Your task to perform on an android device: change keyboard looks Image 0: 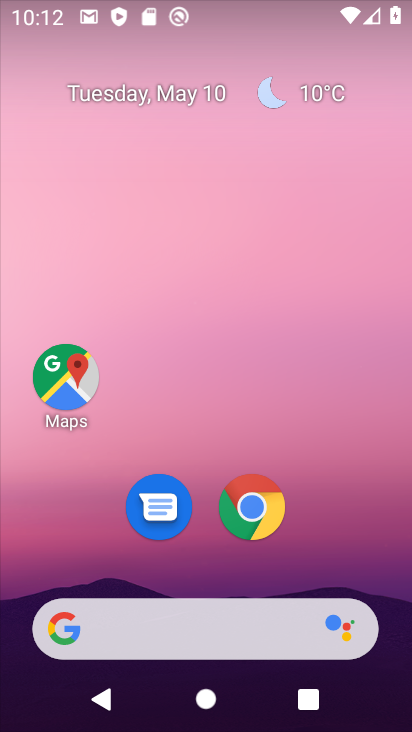
Step 0: drag from (339, 563) to (323, 99)
Your task to perform on an android device: change keyboard looks Image 1: 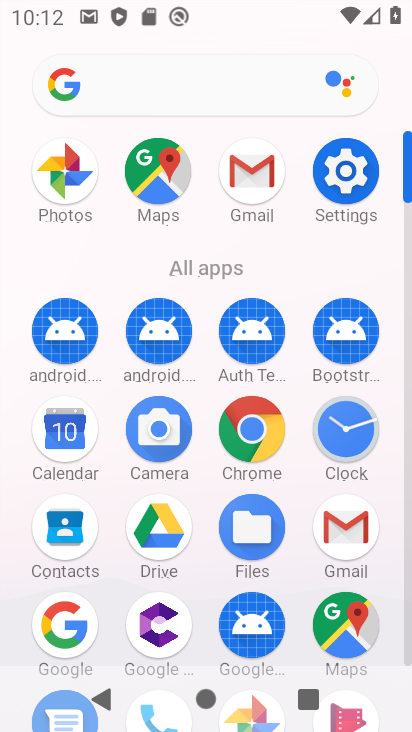
Step 1: click (363, 172)
Your task to perform on an android device: change keyboard looks Image 2: 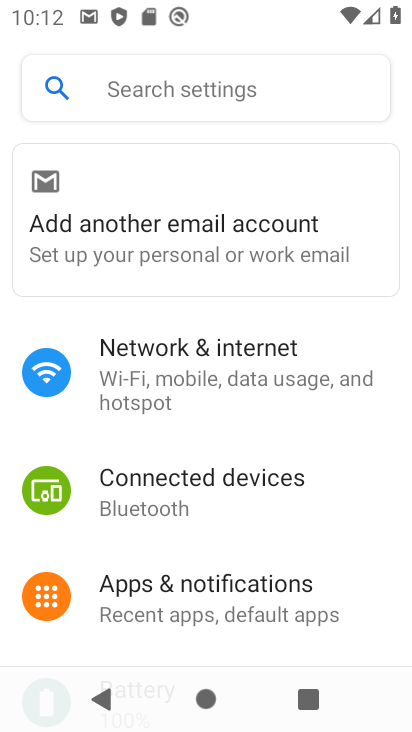
Step 2: drag from (240, 610) to (250, 211)
Your task to perform on an android device: change keyboard looks Image 3: 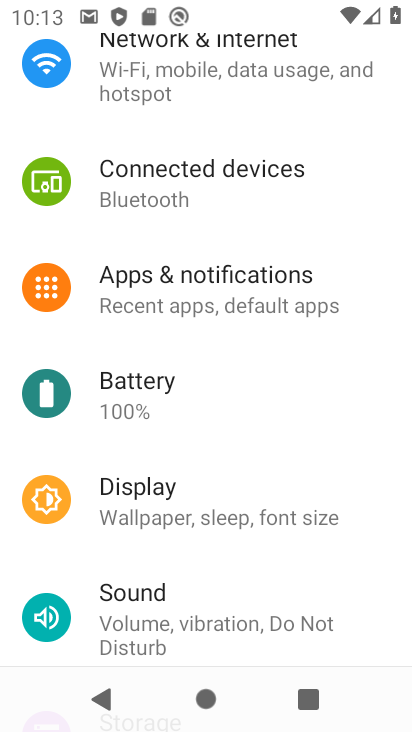
Step 3: drag from (239, 599) to (239, 262)
Your task to perform on an android device: change keyboard looks Image 4: 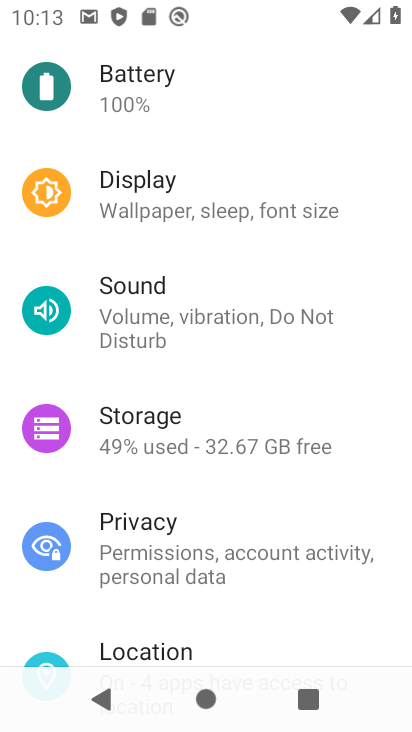
Step 4: drag from (295, 632) to (373, 114)
Your task to perform on an android device: change keyboard looks Image 5: 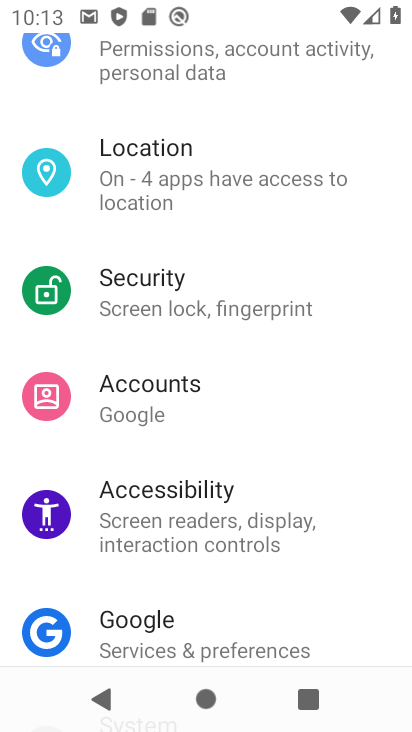
Step 5: drag from (284, 559) to (314, 204)
Your task to perform on an android device: change keyboard looks Image 6: 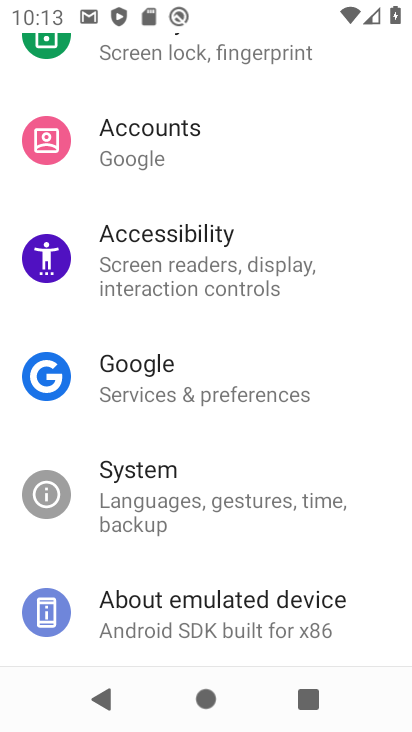
Step 6: click (253, 515)
Your task to perform on an android device: change keyboard looks Image 7: 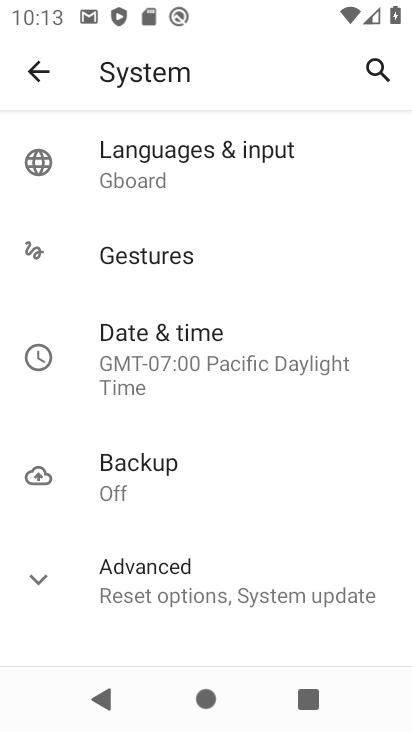
Step 7: click (222, 171)
Your task to perform on an android device: change keyboard looks Image 8: 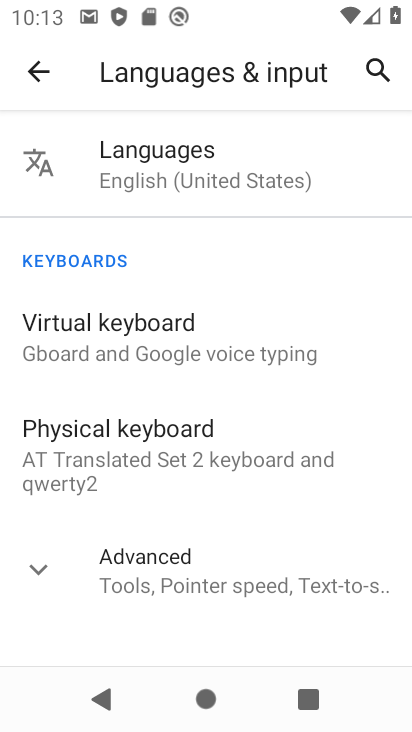
Step 8: click (193, 334)
Your task to perform on an android device: change keyboard looks Image 9: 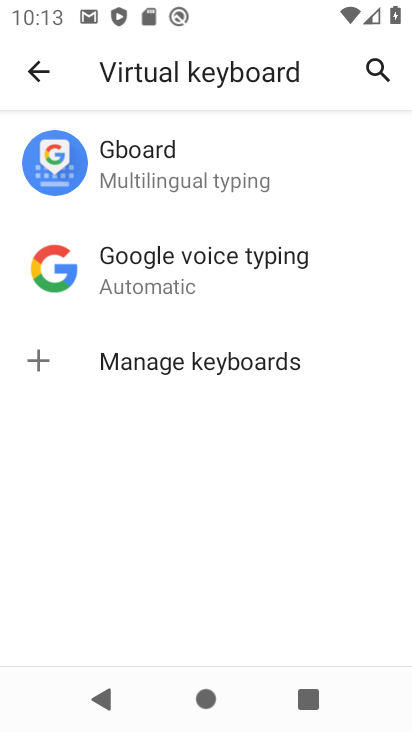
Step 9: click (206, 164)
Your task to perform on an android device: change keyboard looks Image 10: 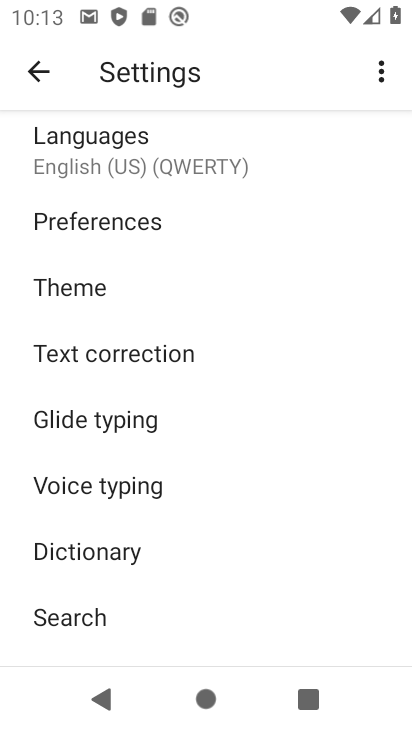
Step 10: click (130, 293)
Your task to perform on an android device: change keyboard looks Image 11: 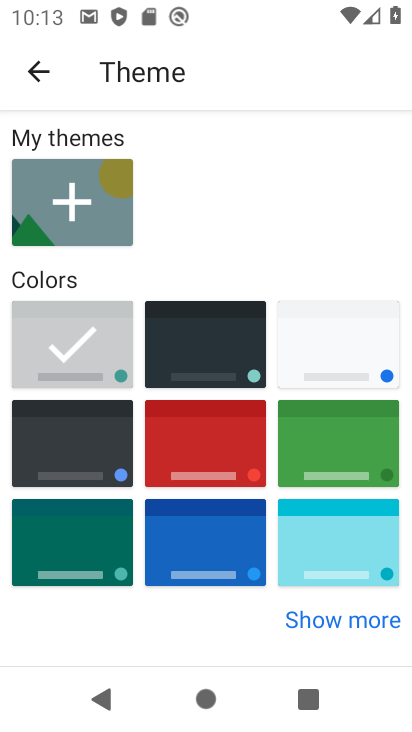
Step 11: click (202, 351)
Your task to perform on an android device: change keyboard looks Image 12: 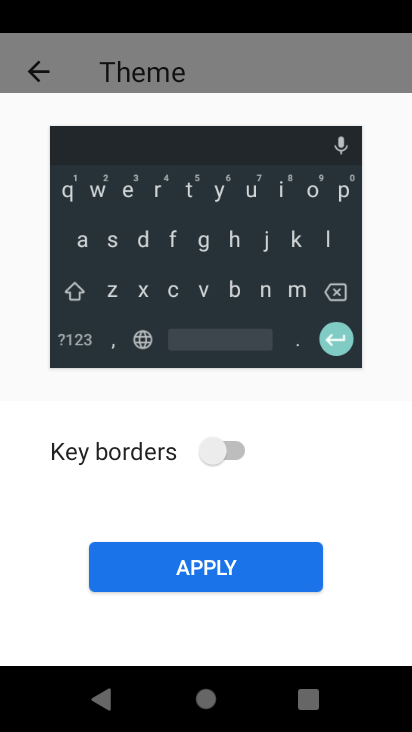
Step 12: click (283, 569)
Your task to perform on an android device: change keyboard looks Image 13: 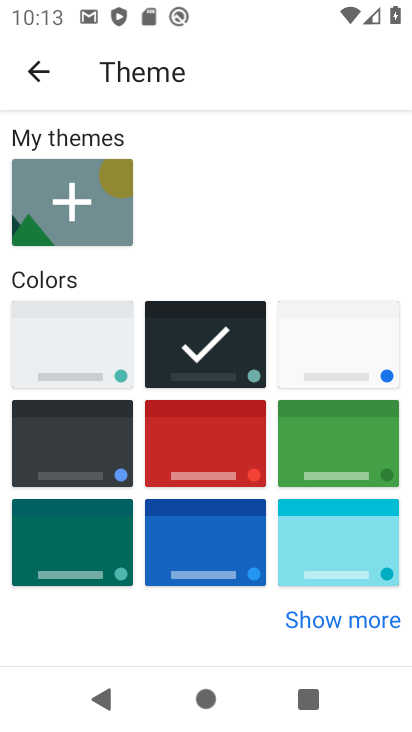
Step 13: task complete